Your task to perform on an android device: Open wifi settings Image 0: 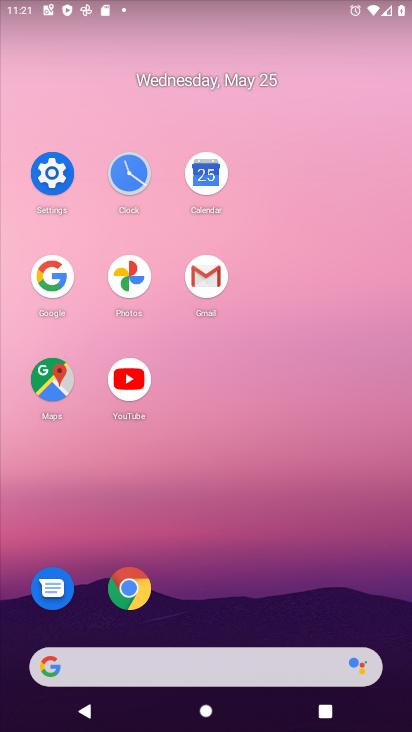
Step 0: click (55, 187)
Your task to perform on an android device: Open wifi settings Image 1: 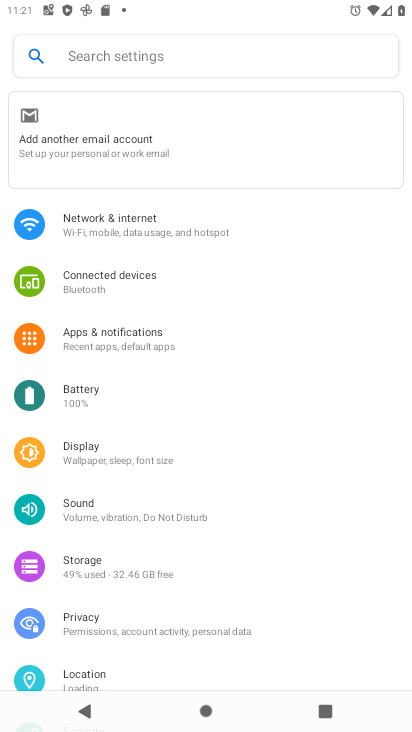
Step 1: click (146, 240)
Your task to perform on an android device: Open wifi settings Image 2: 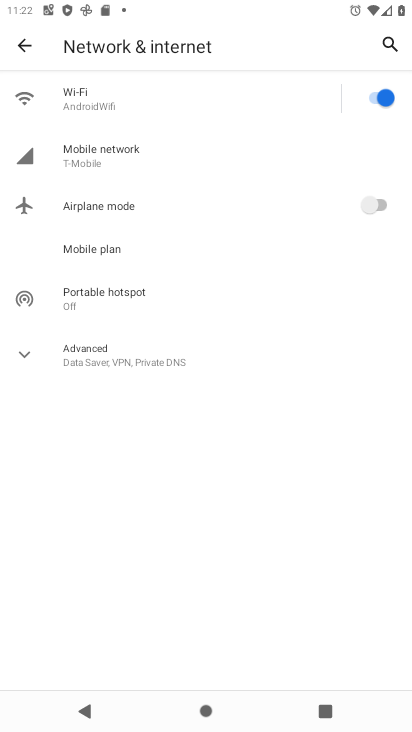
Step 2: click (129, 102)
Your task to perform on an android device: Open wifi settings Image 3: 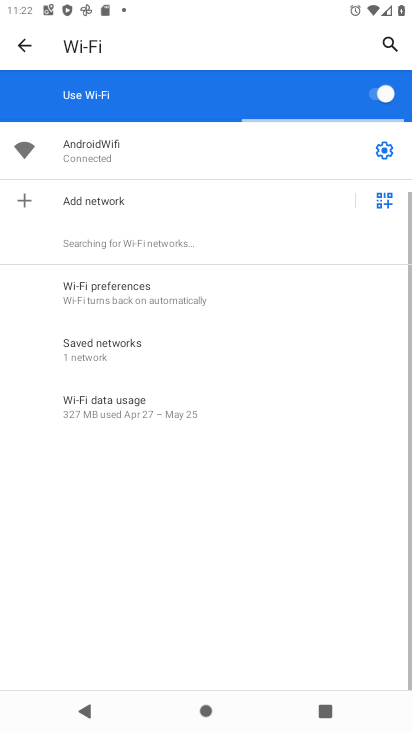
Step 3: click (385, 145)
Your task to perform on an android device: Open wifi settings Image 4: 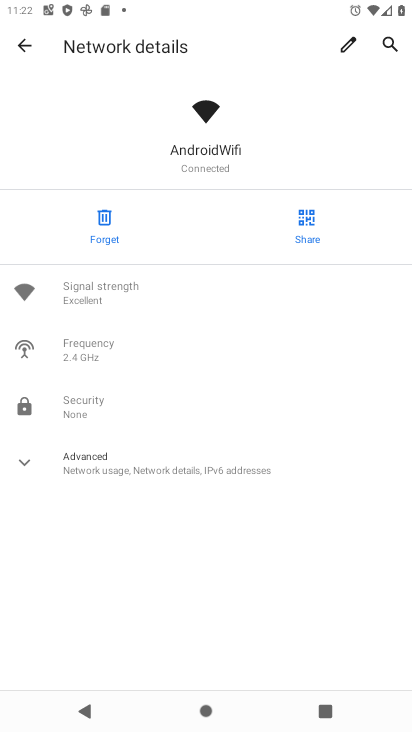
Step 4: task complete